Your task to perform on an android device: toggle data saver in the chrome app Image 0: 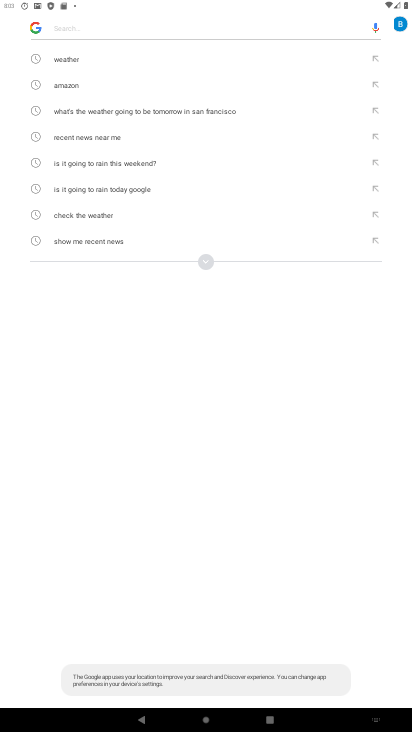
Step 0: press home button
Your task to perform on an android device: toggle data saver in the chrome app Image 1: 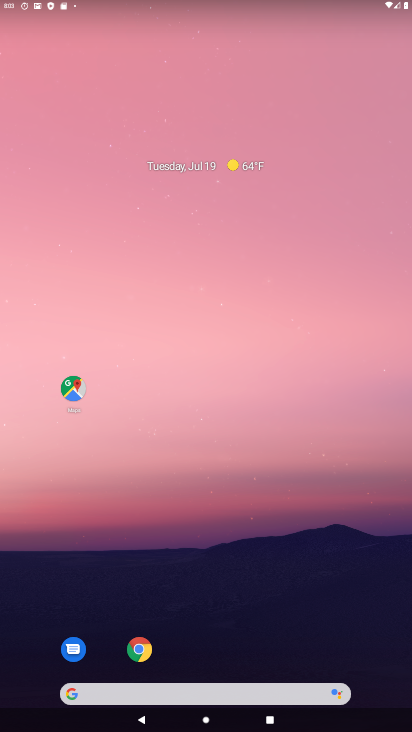
Step 1: drag from (265, 693) to (234, 90)
Your task to perform on an android device: toggle data saver in the chrome app Image 2: 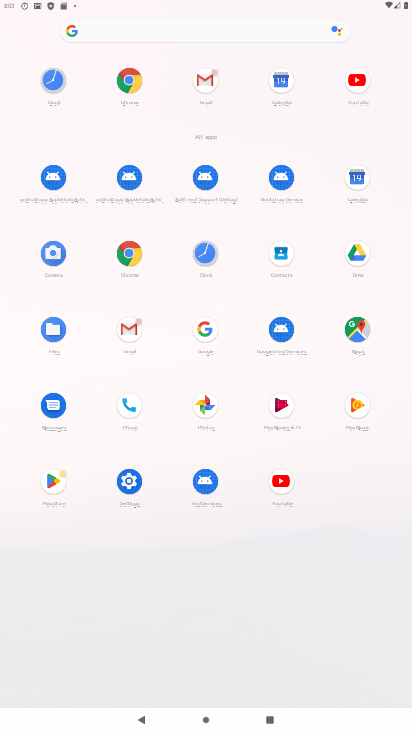
Step 2: click (134, 253)
Your task to perform on an android device: toggle data saver in the chrome app Image 3: 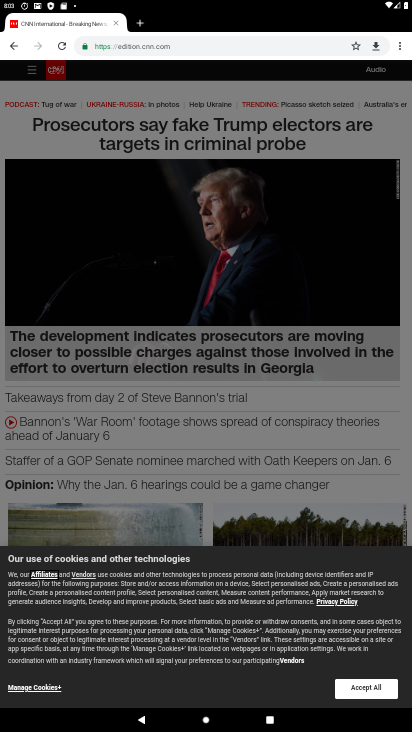
Step 3: drag from (396, 45) to (329, 288)
Your task to perform on an android device: toggle data saver in the chrome app Image 4: 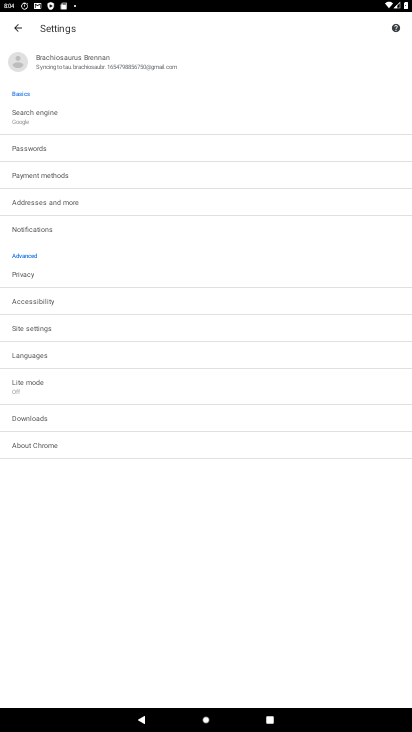
Step 4: click (43, 280)
Your task to perform on an android device: toggle data saver in the chrome app Image 5: 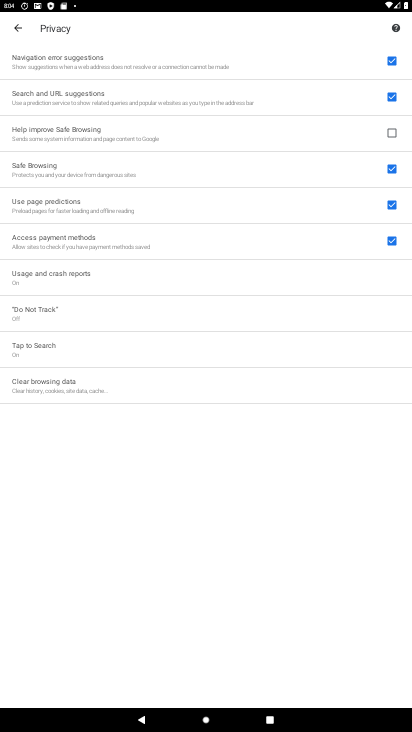
Step 5: press back button
Your task to perform on an android device: toggle data saver in the chrome app Image 6: 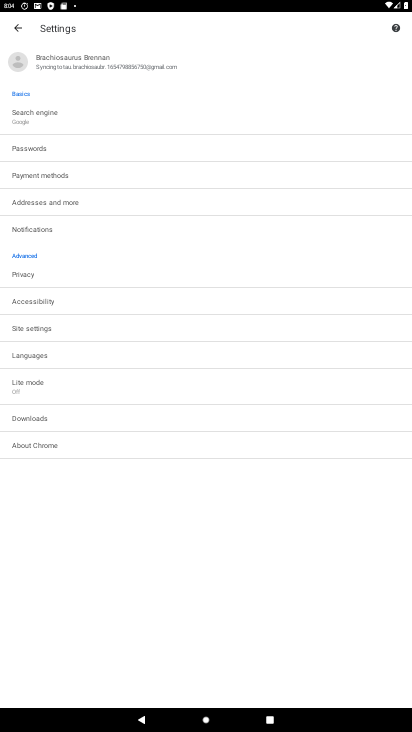
Step 6: click (112, 380)
Your task to perform on an android device: toggle data saver in the chrome app Image 7: 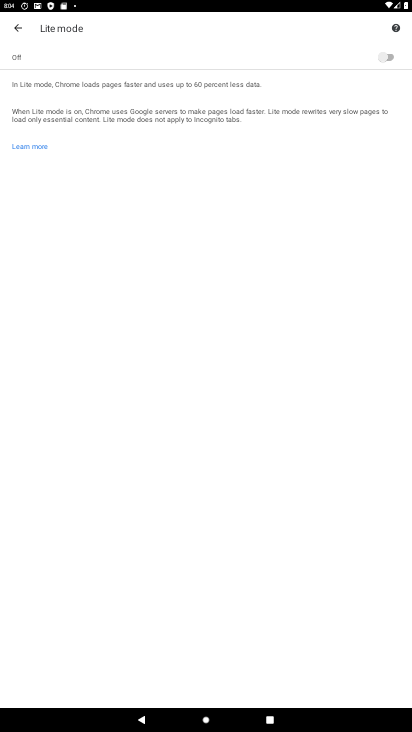
Step 7: click (383, 58)
Your task to perform on an android device: toggle data saver in the chrome app Image 8: 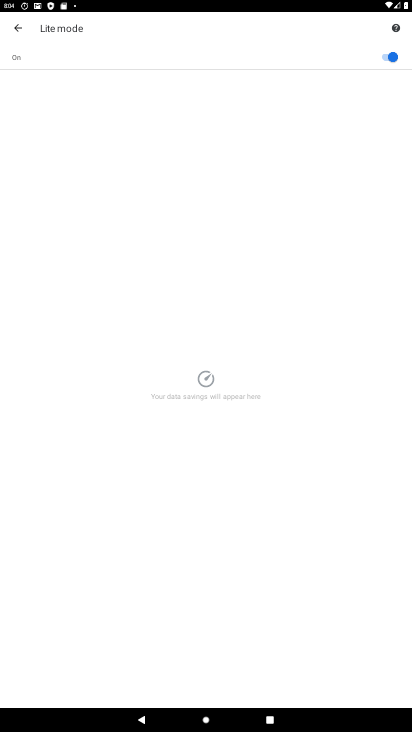
Step 8: task complete